Your task to perform on an android device: Is it going to rain today? Image 0: 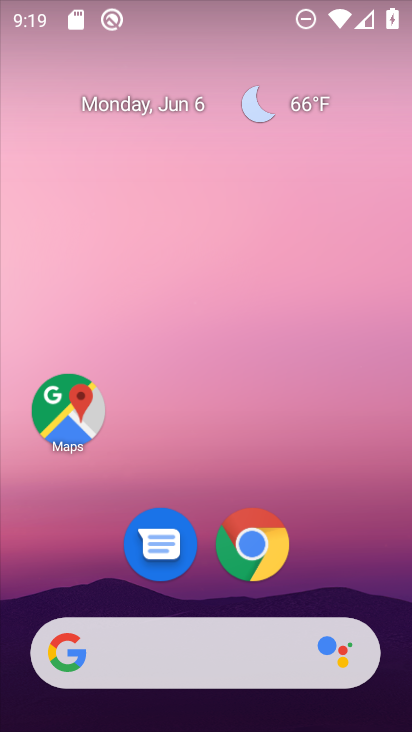
Step 0: click (252, 545)
Your task to perform on an android device: Is it going to rain today? Image 1: 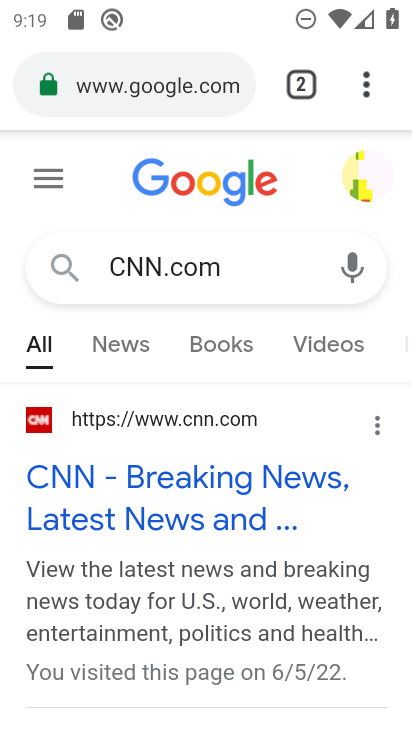
Step 1: click (170, 93)
Your task to perform on an android device: Is it going to rain today? Image 2: 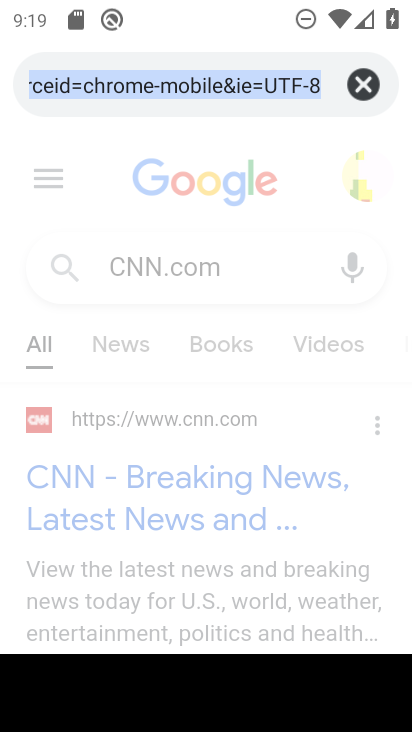
Step 2: type "v"
Your task to perform on an android device: Is it going to rain today? Image 3: 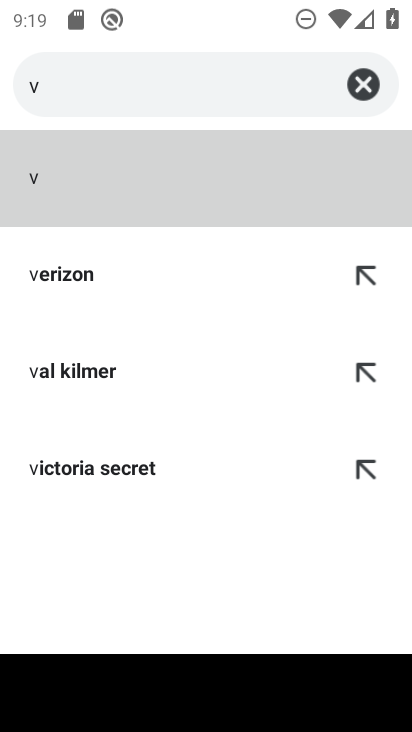
Step 3: type "seafood restaurants"
Your task to perform on an android device: Is it going to rain today? Image 4: 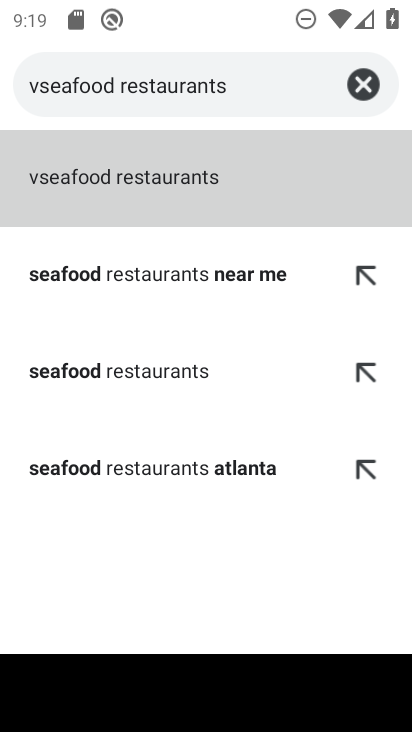
Step 4: click (347, 84)
Your task to perform on an android device: Is it going to rain today? Image 5: 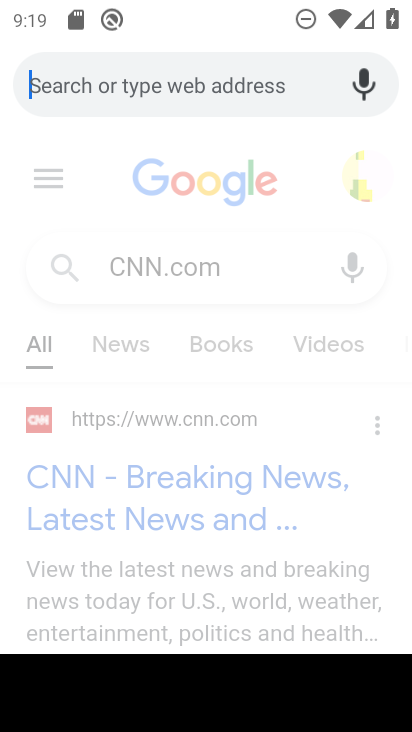
Step 5: type "Is it going to rain today?"
Your task to perform on an android device: Is it going to rain today? Image 6: 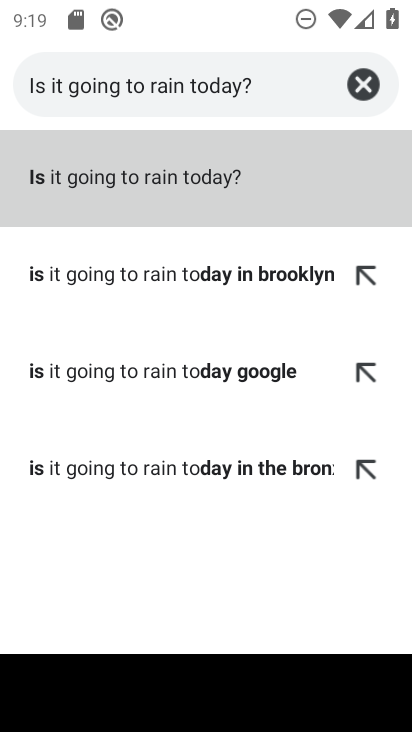
Step 6: click (166, 173)
Your task to perform on an android device: Is it going to rain today? Image 7: 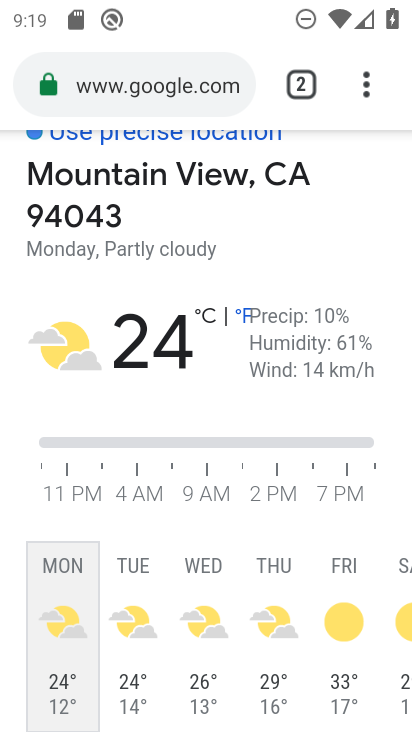
Step 7: task complete